Your task to perform on an android device: Go to Amazon Image 0: 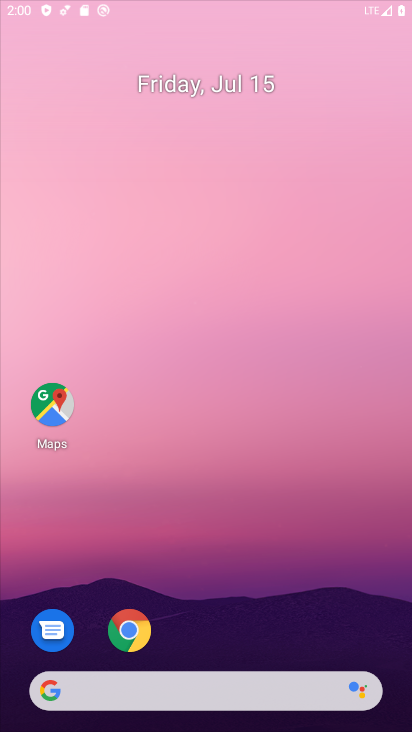
Step 0: press home button
Your task to perform on an android device: Go to Amazon Image 1: 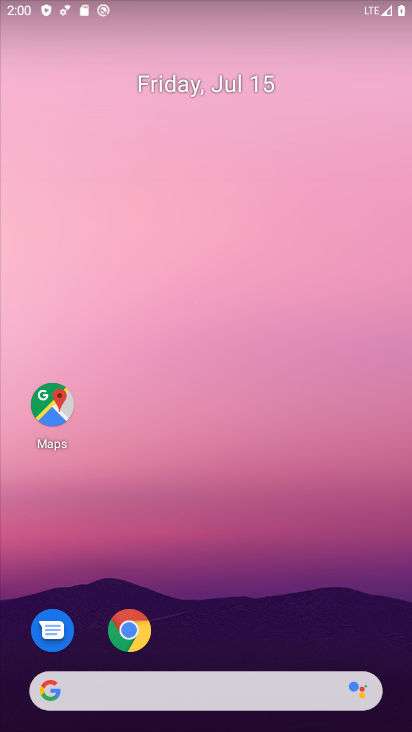
Step 1: click (44, 683)
Your task to perform on an android device: Go to Amazon Image 2: 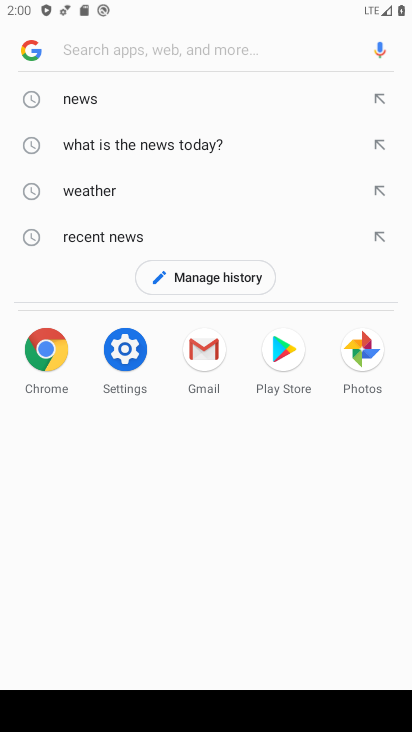
Step 2: type "Amazon"
Your task to perform on an android device: Go to Amazon Image 3: 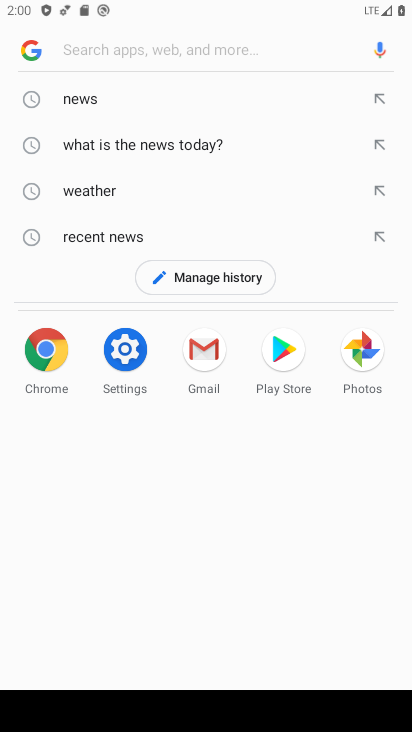
Step 3: click (91, 44)
Your task to perform on an android device: Go to Amazon Image 4: 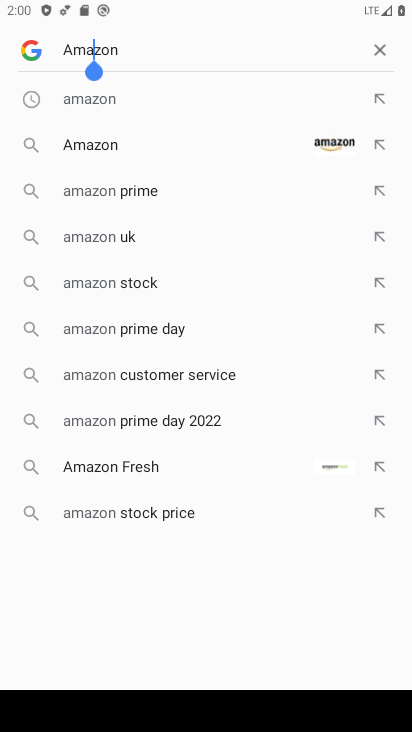
Step 4: click (338, 139)
Your task to perform on an android device: Go to Amazon Image 5: 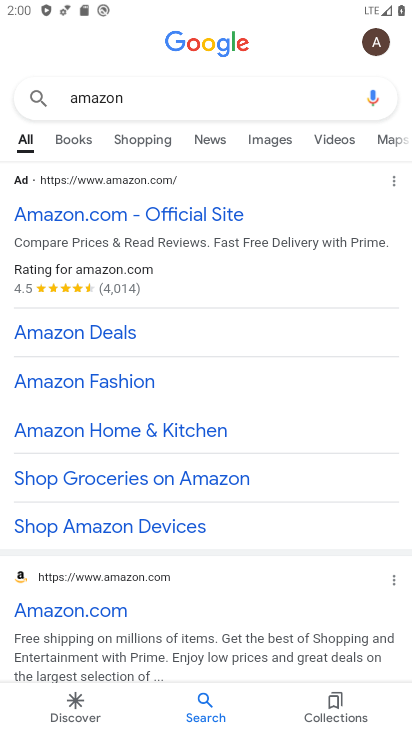
Step 5: click (45, 607)
Your task to perform on an android device: Go to Amazon Image 6: 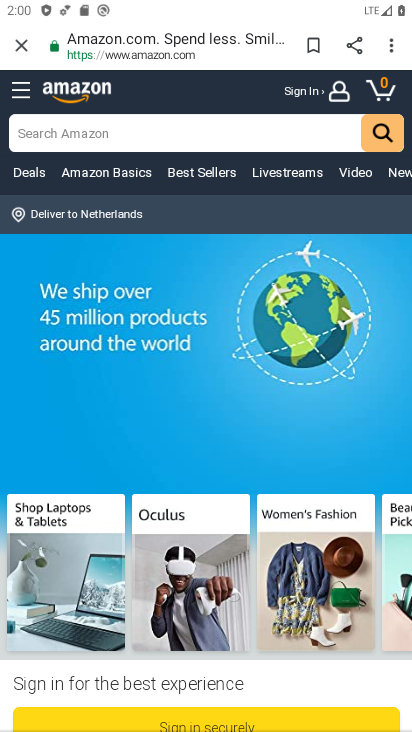
Step 6: task complete